Your task to perform on an android device: toggle javascript in the chrome app Image 0: 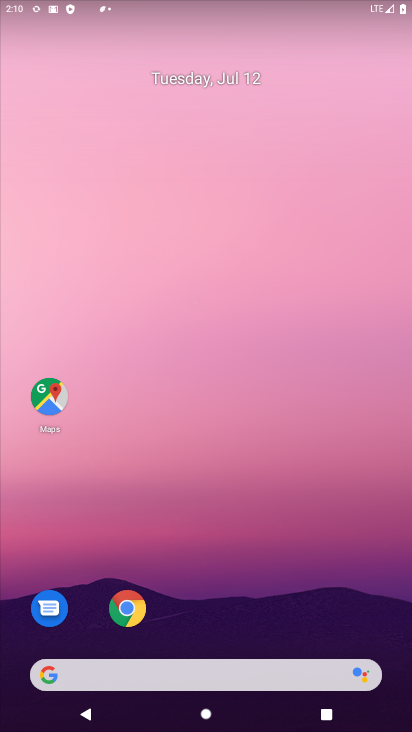
Step 0: click (125, 605)
Your task to perform on an android device: toggle javascript in the chrome app Image 1: 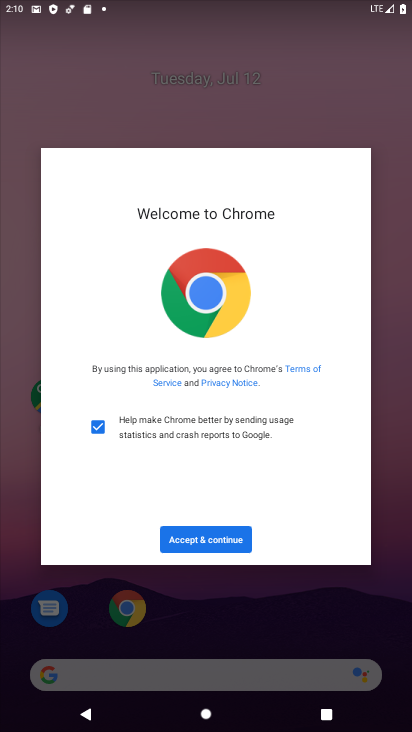
Step 1: click (198, 540)
Your task to perform on an android device: toggle javascript in the chrome app Image 2: 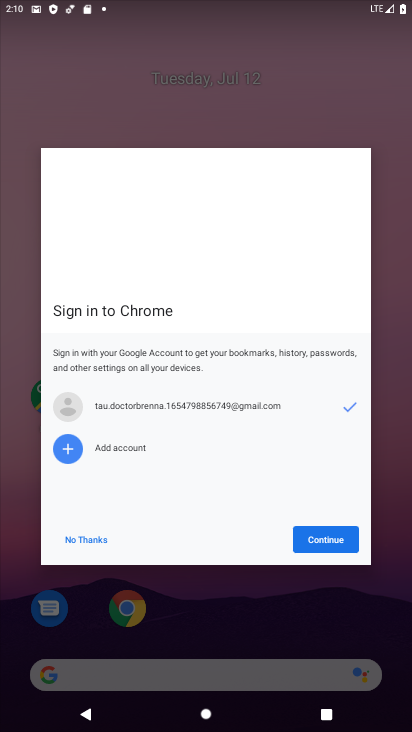
Step 2: click (310, 547)
Your task to perform on an android device: toggle javascript in the chrome app Image 3: 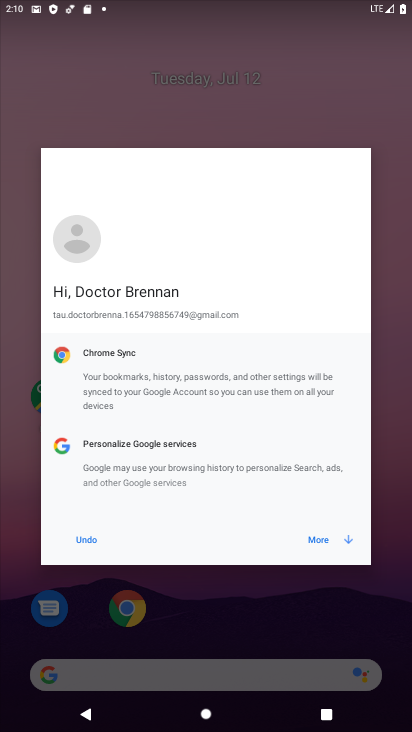
Step 3: click (315, 537)
Your task to perform on an android device: toggle javascript in the chrome app Image 4: 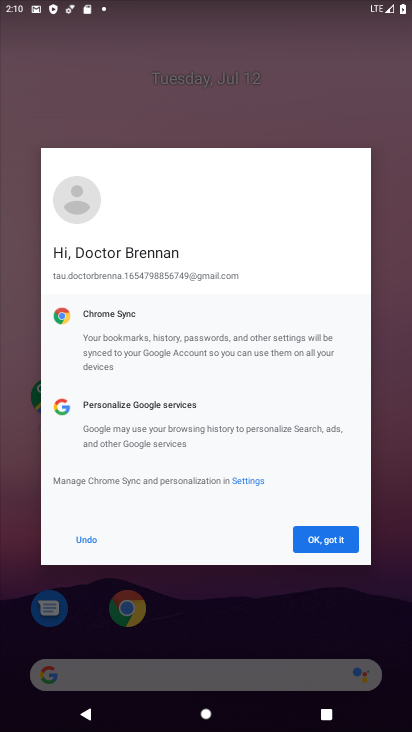
Step 4: click (315, 537)
Your task to perform on an android device: toggle javascript in the chrome app Image 5: 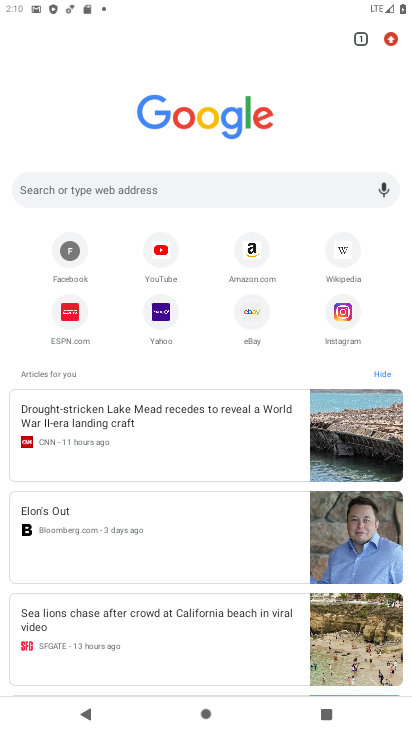
Step 5: click (391, 34)
Your task to perform on an android device: toggle javascript in the chrome app Image 6: 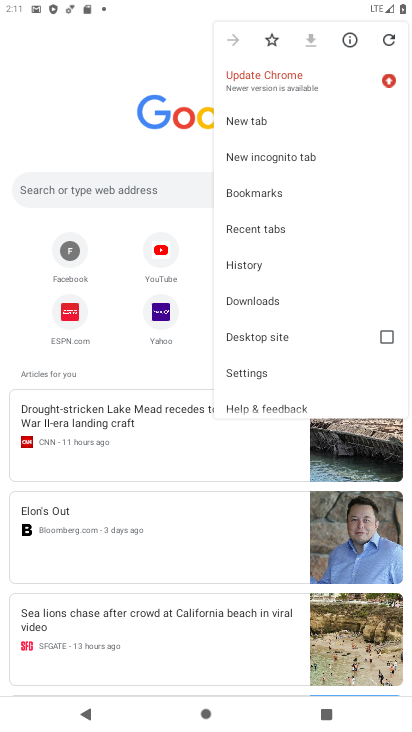
Step 6: click (253, 373)
Your task to perform on an android device: toggle javascript in the chrome app Image 7: 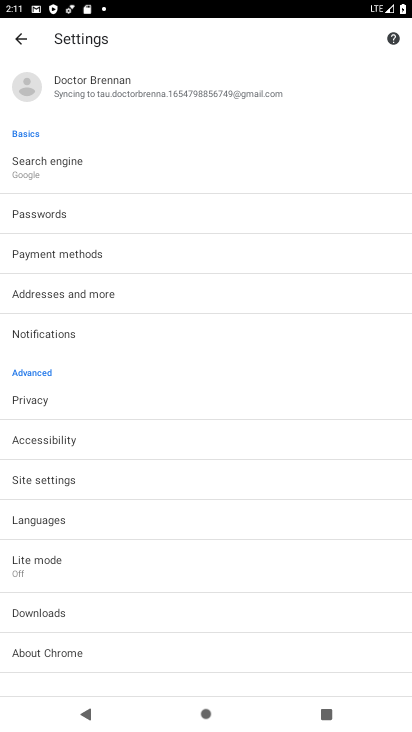
Step 7: click (58, 484)
Your task to perform on an android device: toggle javascript in the chrome app Image 8: 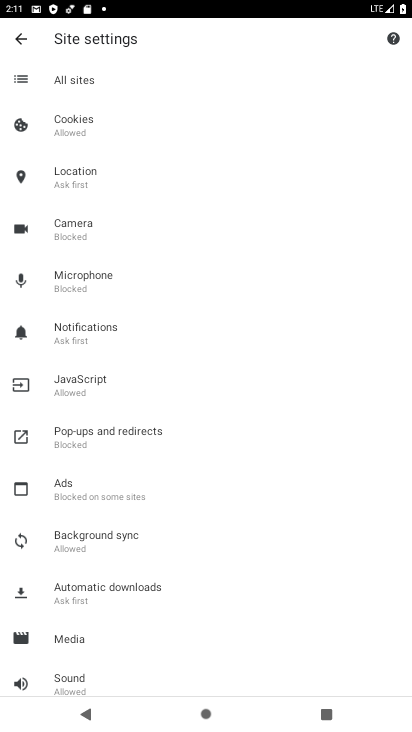
Step 8: click (108, 381)
Your task to perform on an android device: toggle javascript in the chrome app Image 9: 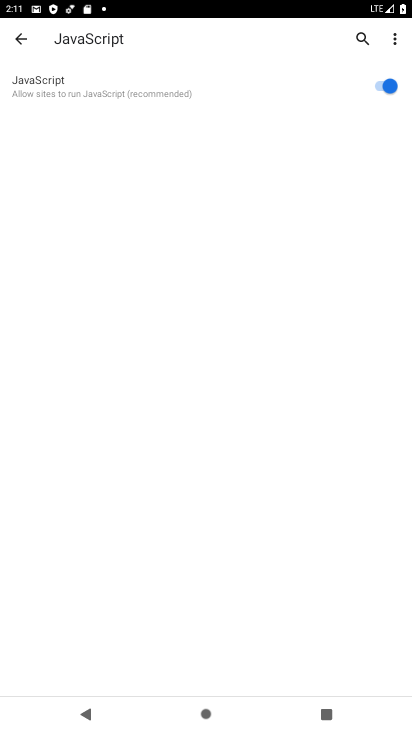
Step 9: click (377, 85)
Your task to perform on an android device: toggle javascript in the chrome app Image 10: 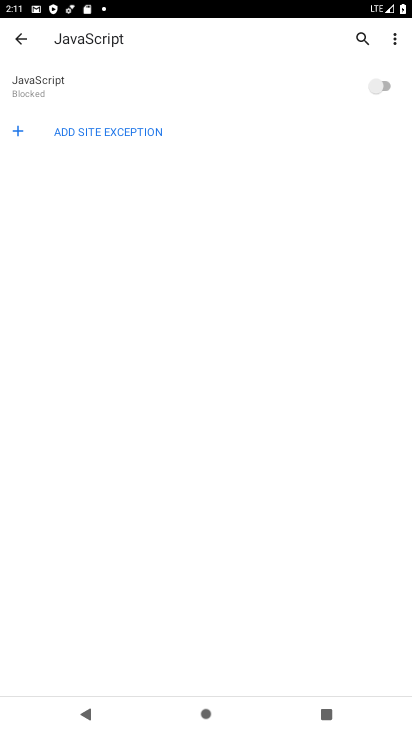
Step 10: task complete